Your task to perform on an android device: uninstall "DoorDash - Food Delivery" Image 0: 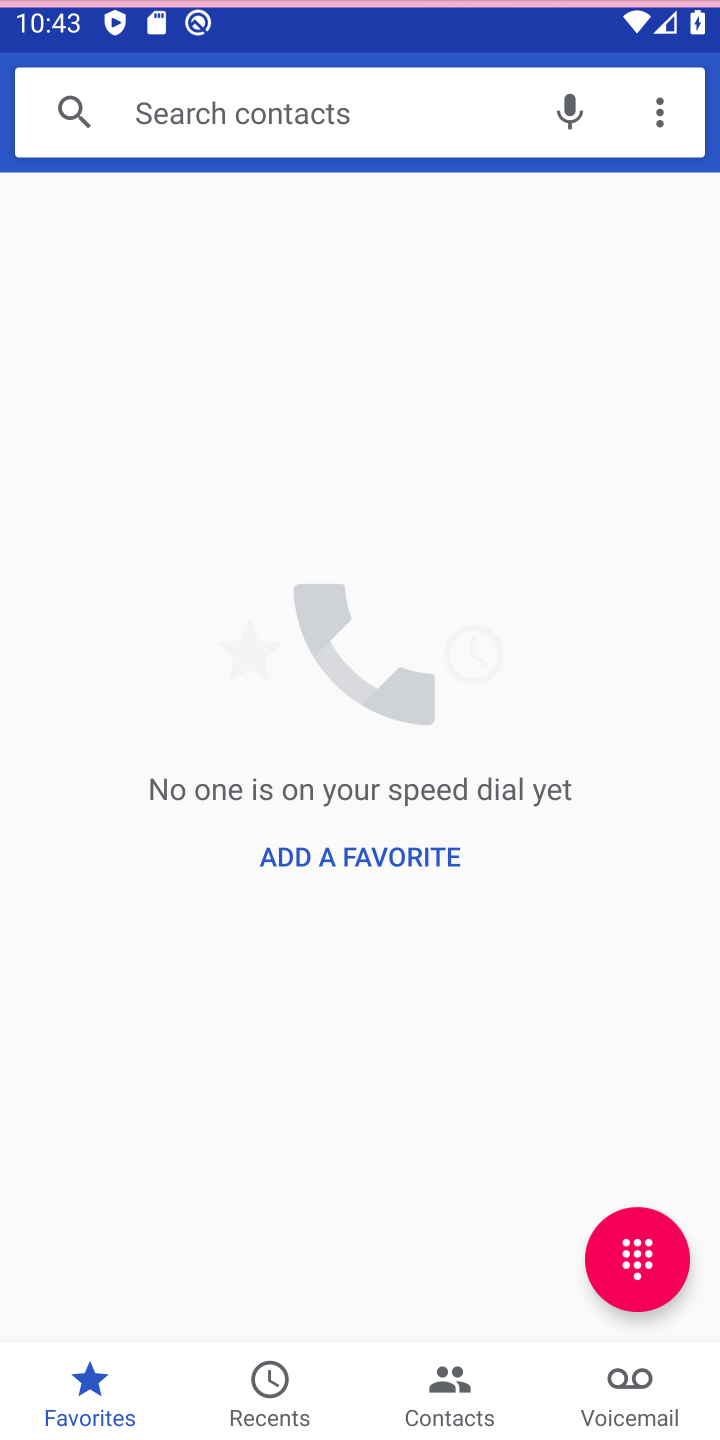
Step 0: click (590, 98)
Your task to perform on an android device: uninstall "DoorDash - Food Delivery" Image 1: 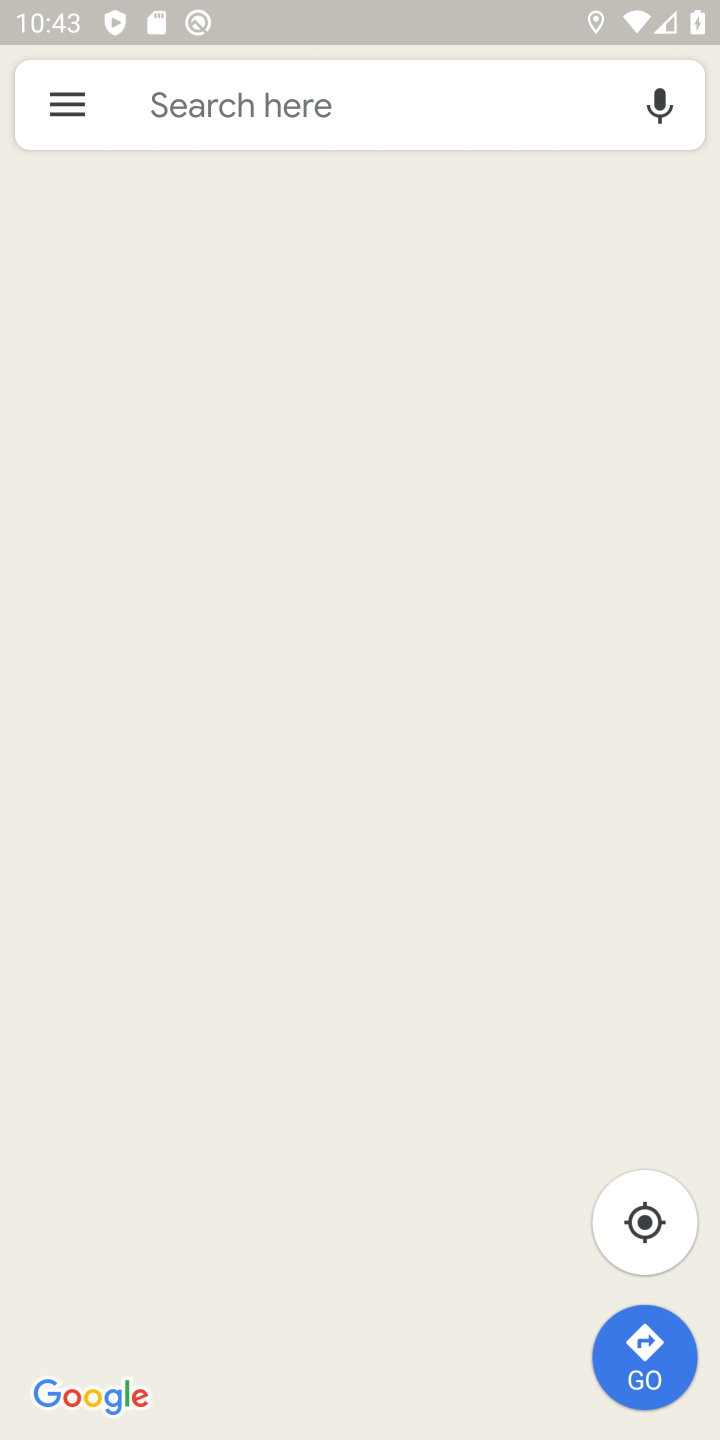
Step 1: press home button
Your task to perform on an android device: uninstall "DoorDash - Food Delivery" Image 2: 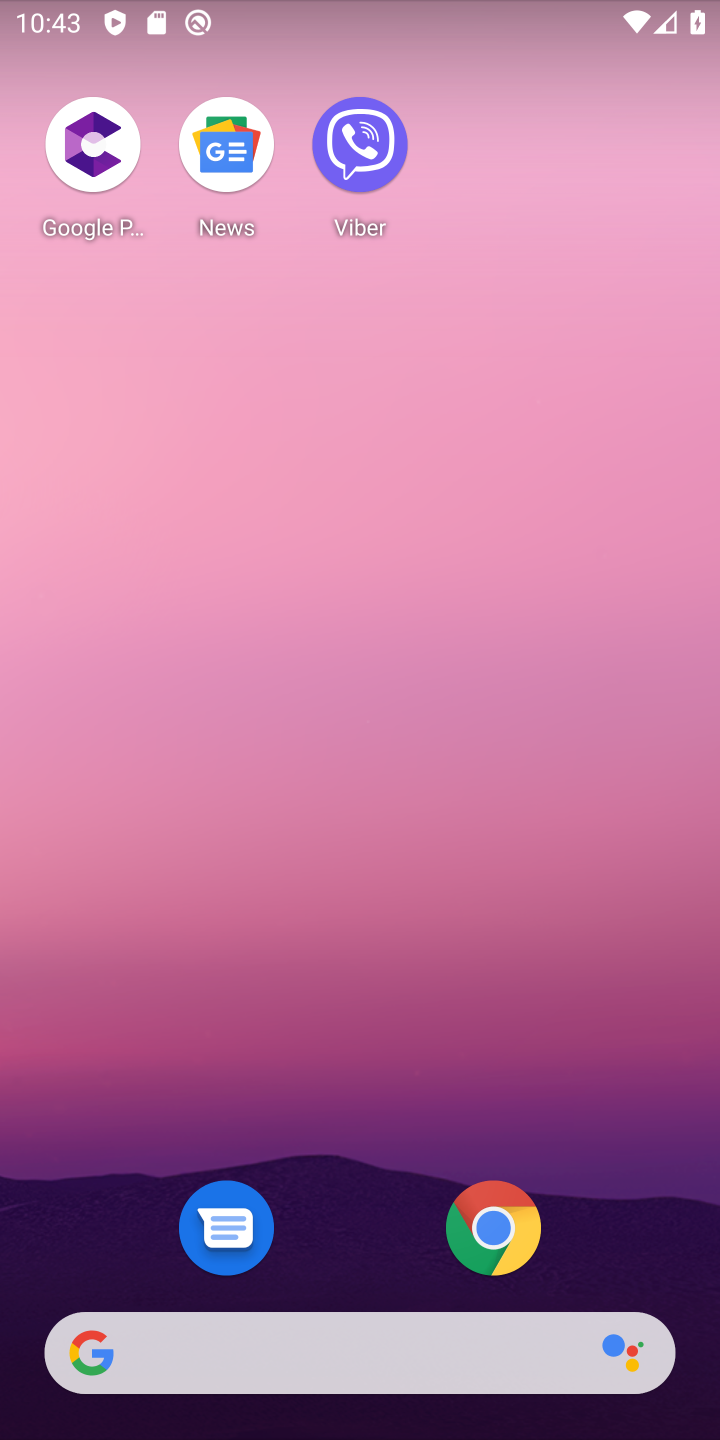
Step 2: drag from (345, 1283) to (337, 154)
Your task to perform on an android device: uninstall "DoorDash - Food Delivery" Image 3: 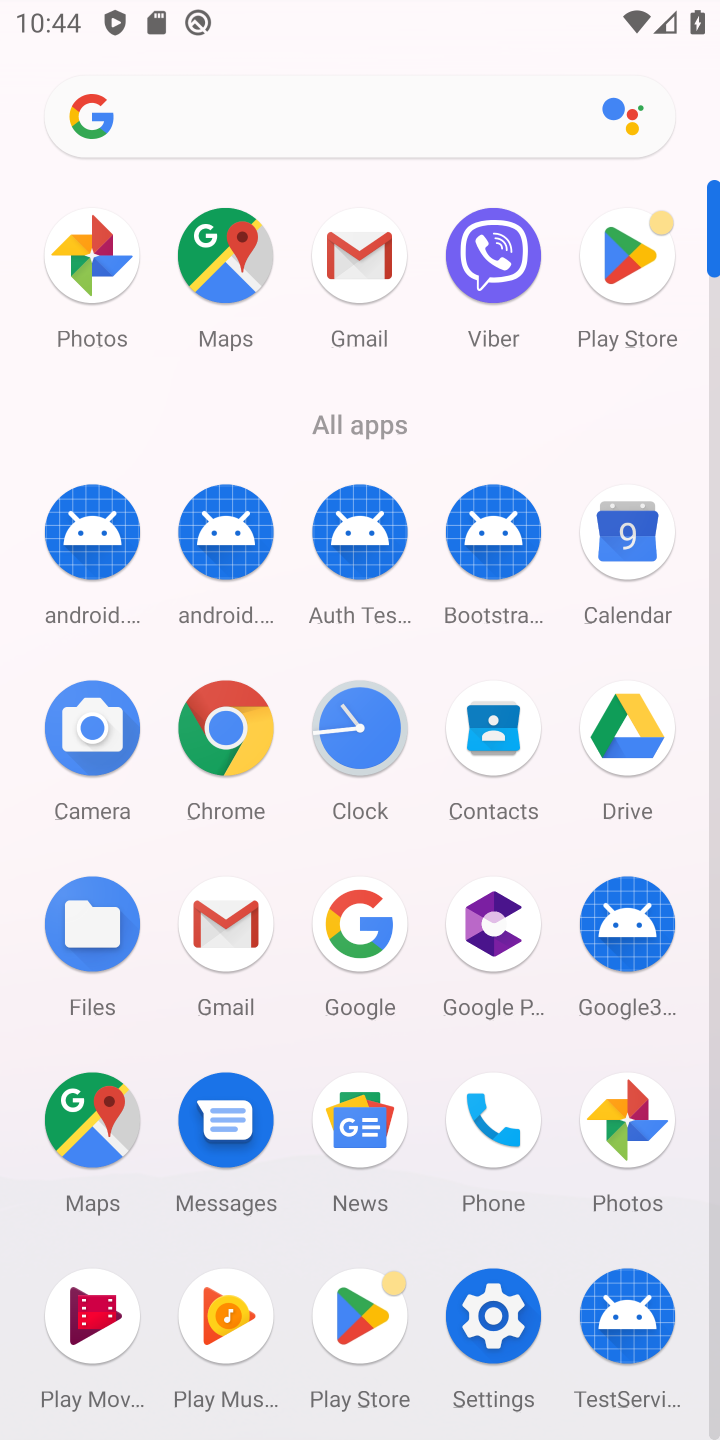
Step 3: click (638, 257)
Your task to perform on an android device: uninstall "DoorDash - Food Delivery" Image 4: 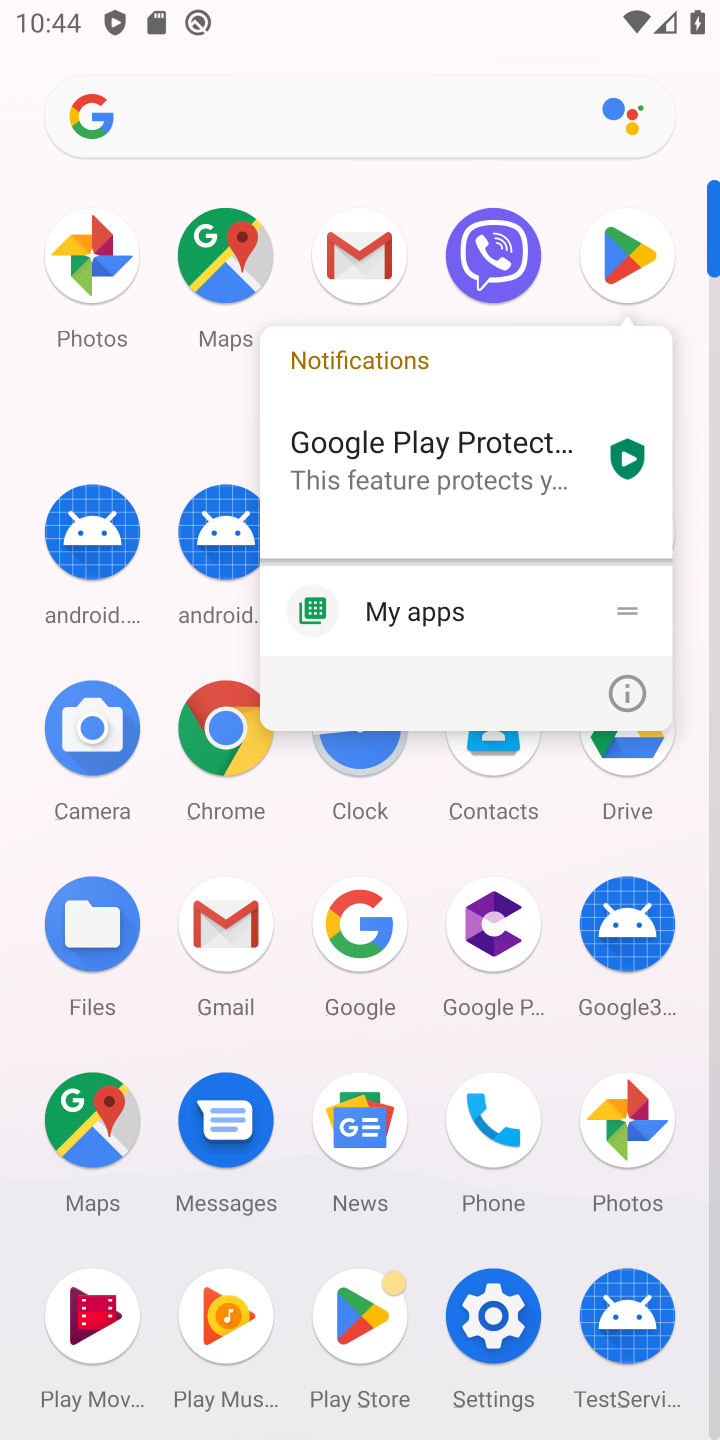
Step 4: click (626, 263)
Your task to perform on an android device: uninstall "DoorDash - Food Delivery" Image 5: 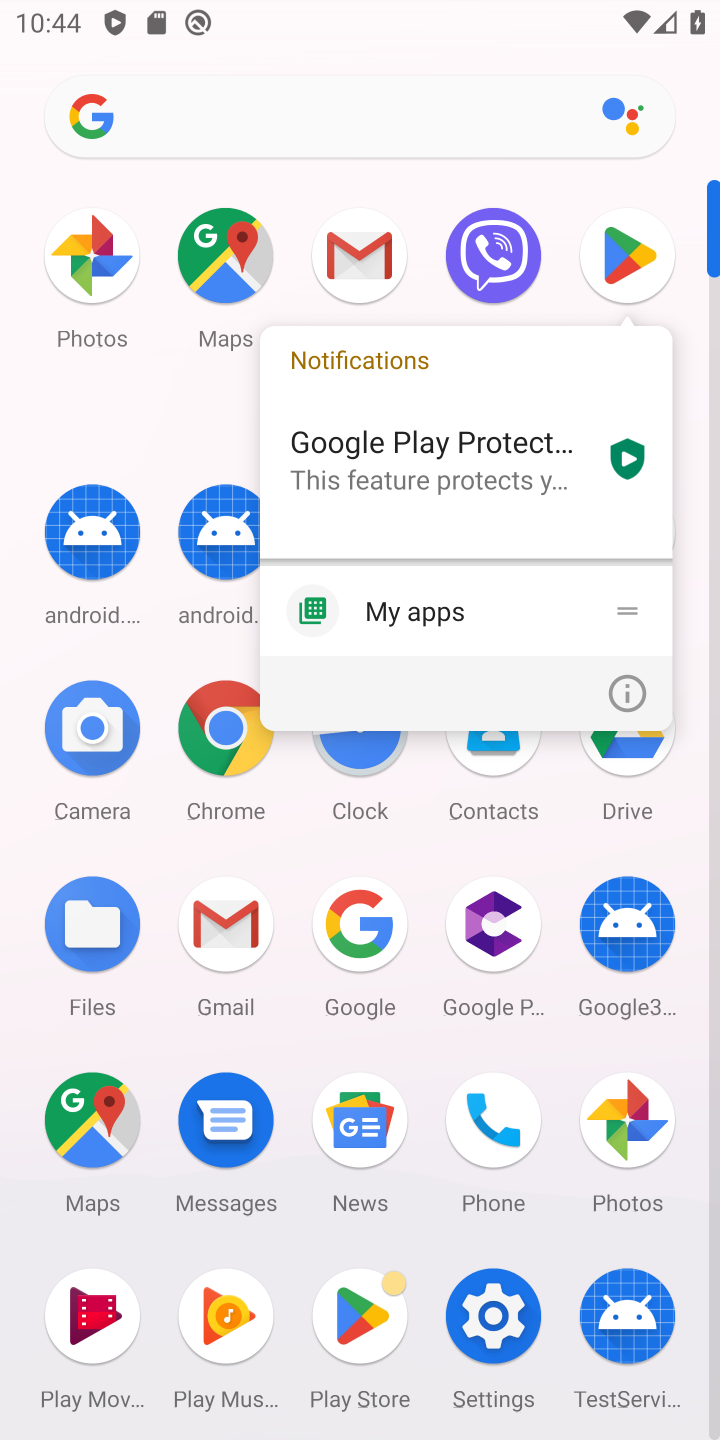
Step 5: click (613, 253)
Your task to perform on an android device: uninstall "DoorDash - Food Delivery" Image 6: 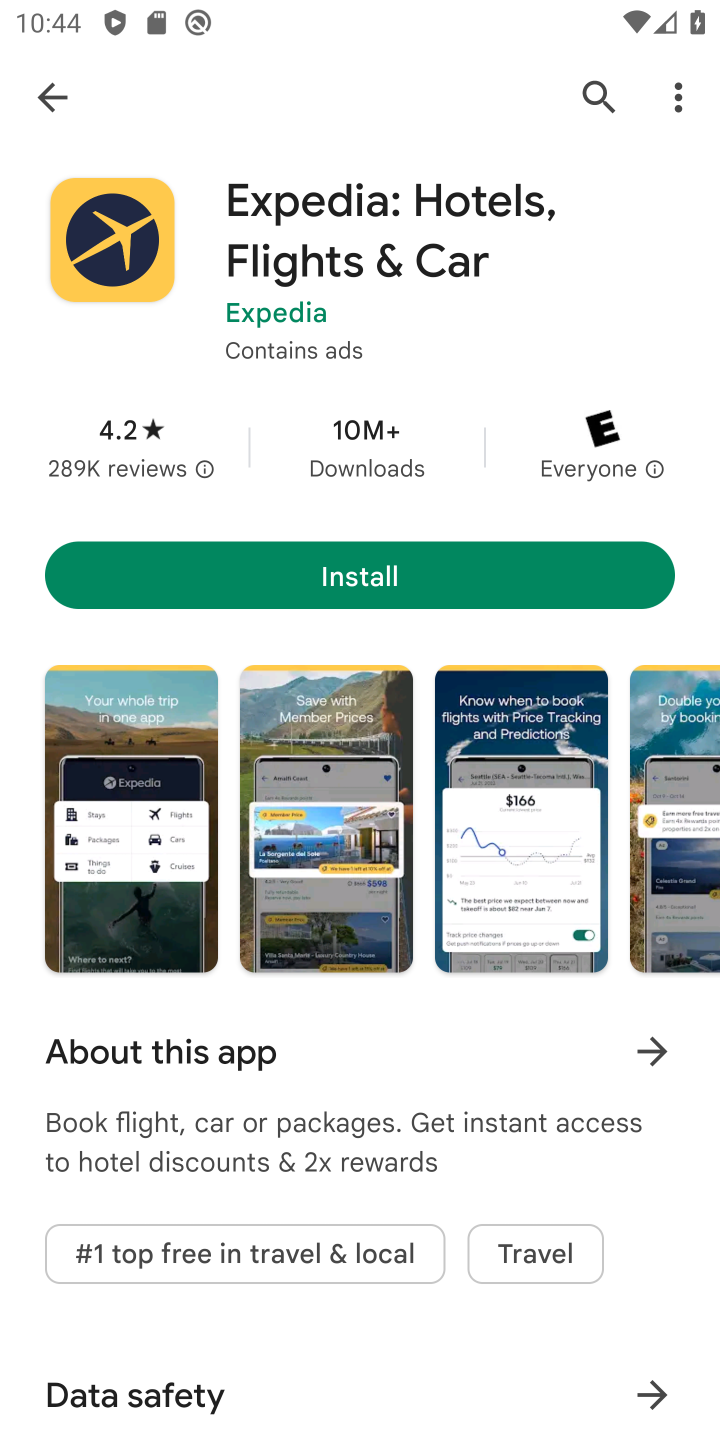
Step 6: click (598, 90)
Your task to perform on an android device: uninstall "DoorDash - Food Delivery" Image 7: 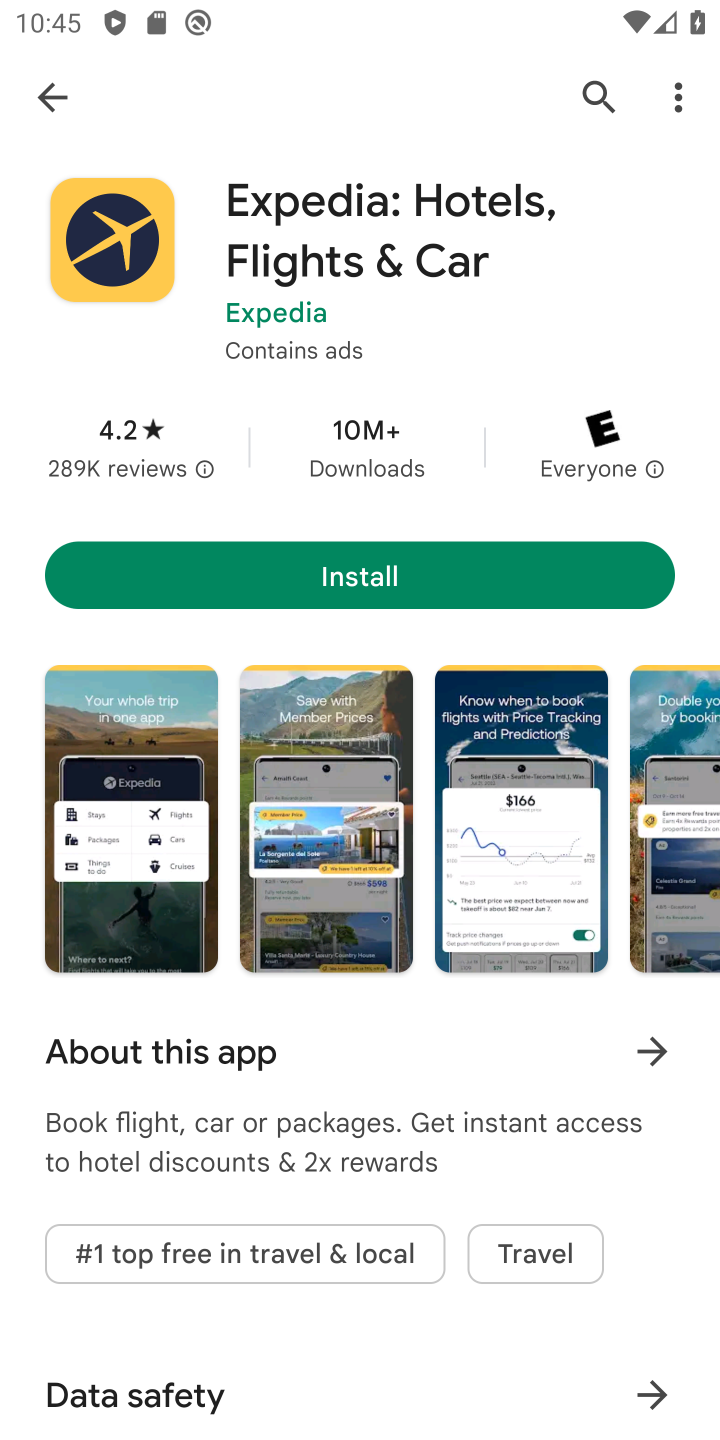
Step 7: click (599, 85)
Your task to perform on an android device: uninstall "DoorDash - Food Delivery" Image 8: 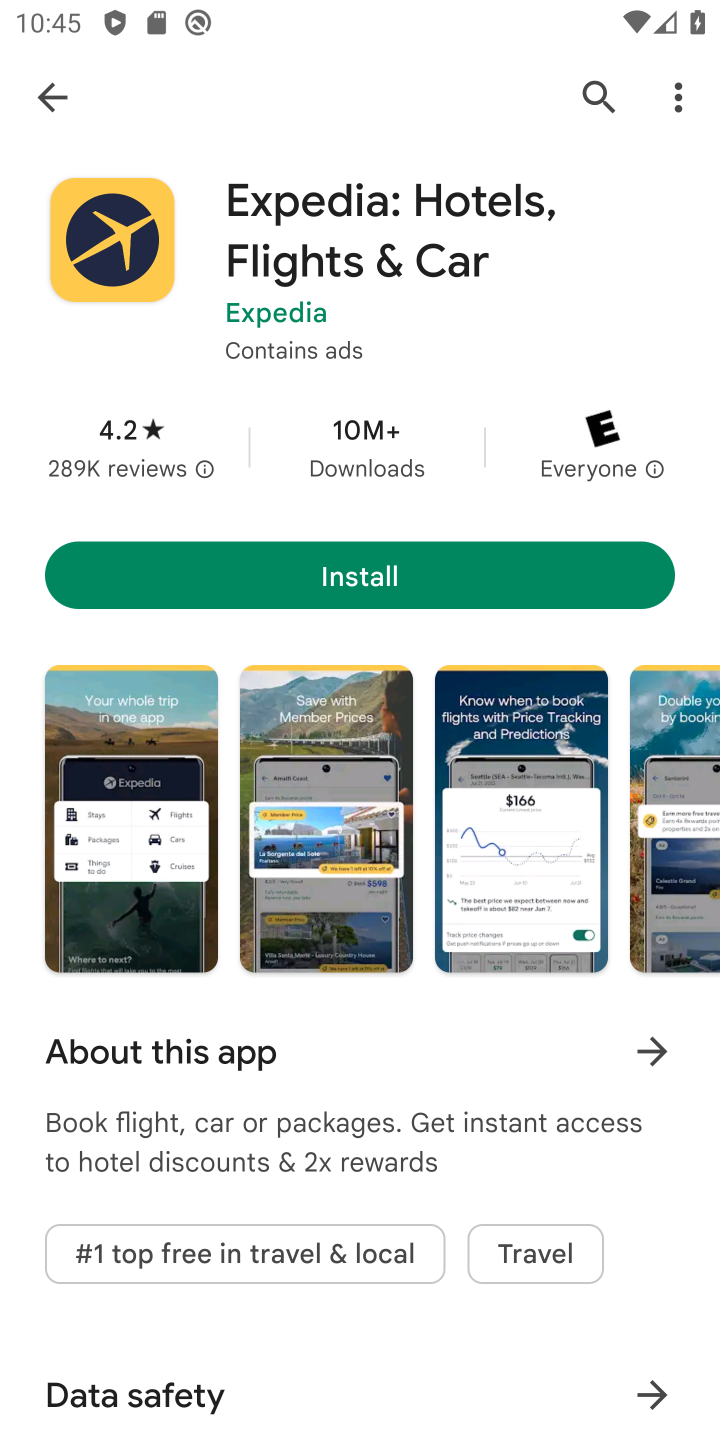
Step 8: click (52, 94)
Your task to perform on an android device: uninstall "DoorDash - Food Delivery" Image 9: 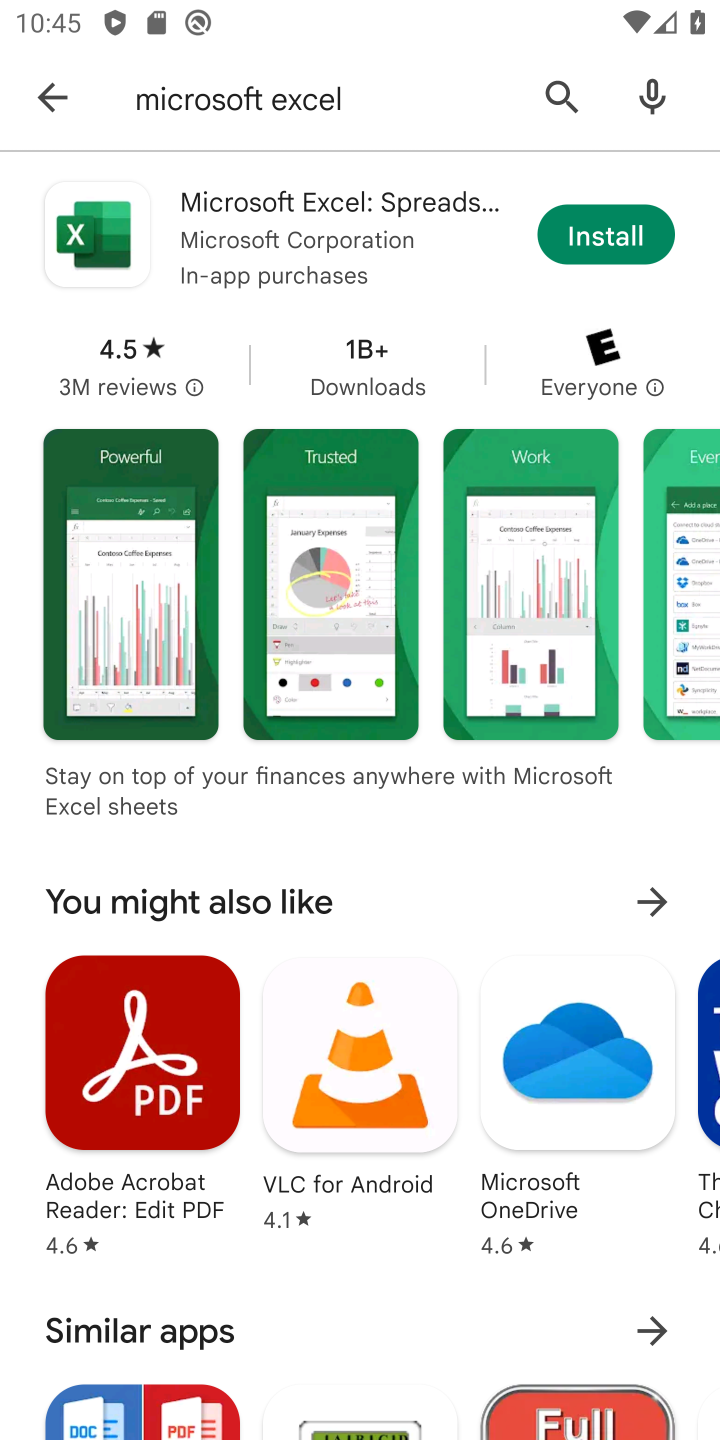
Step 9: click (568, 88)
Your task to perform on an android device: uninstall "DoorDash - Food Delivery" Image 10: 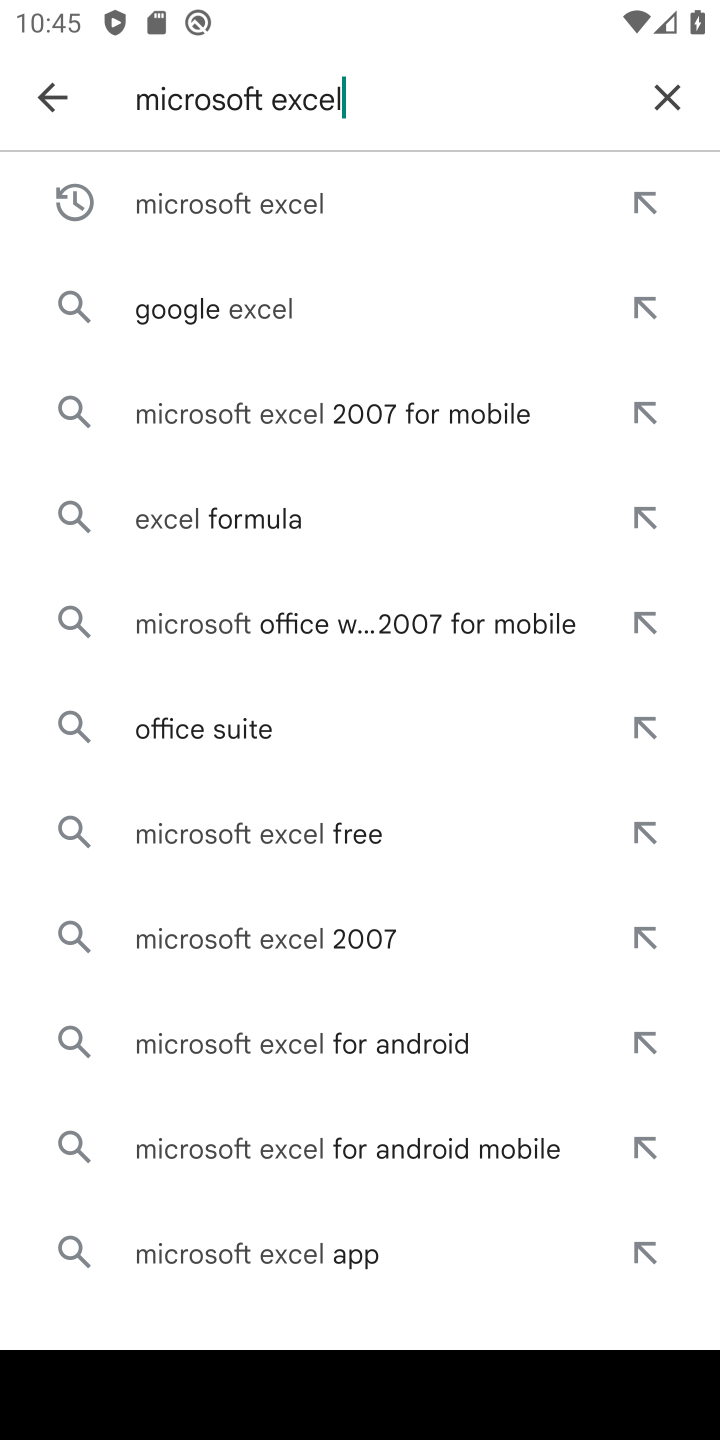
Step 10: click (660, 100)
Your task to perform on an android device: uninstall "DoorDash - Food Delivery" Image 11: 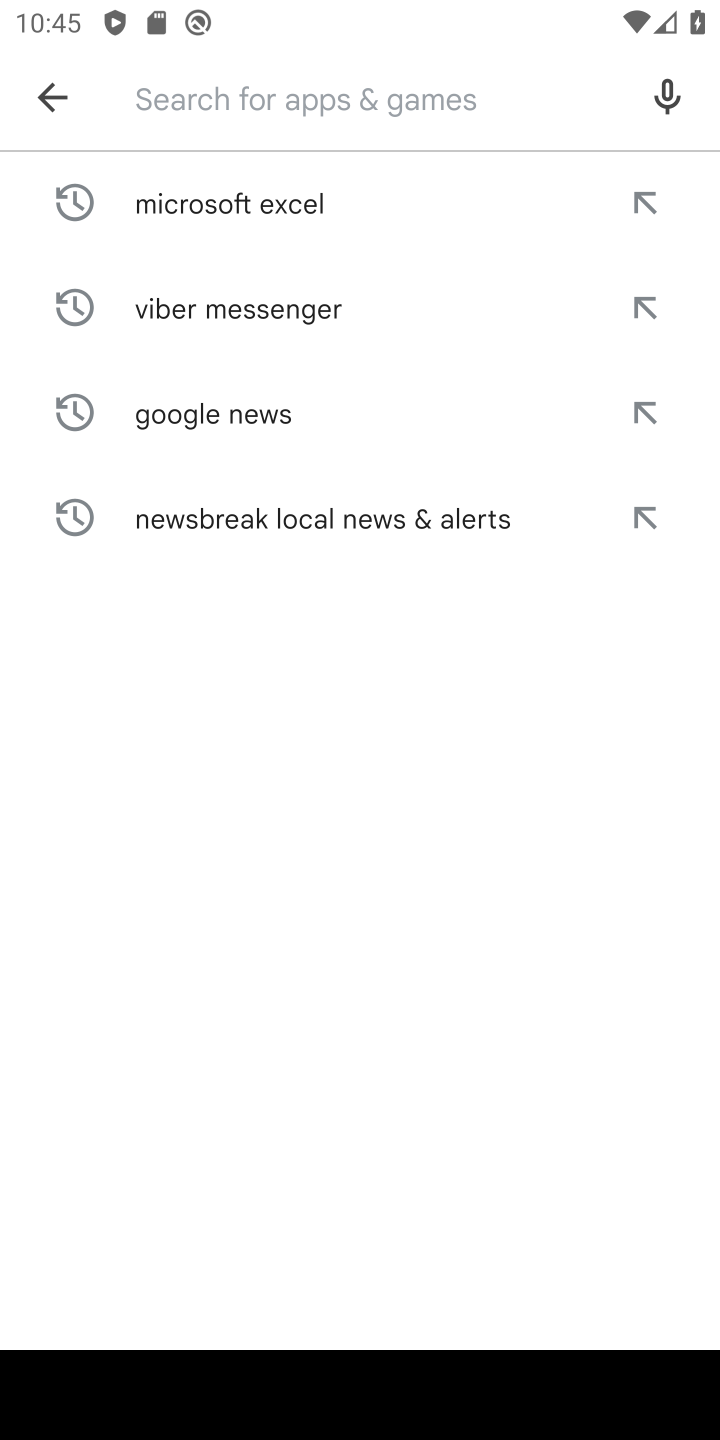
Step 11: type "DoorDash - Food Delivery"
Your task to perform on an android device: uninstall "DoorDash - Food Delivery" Image 12: 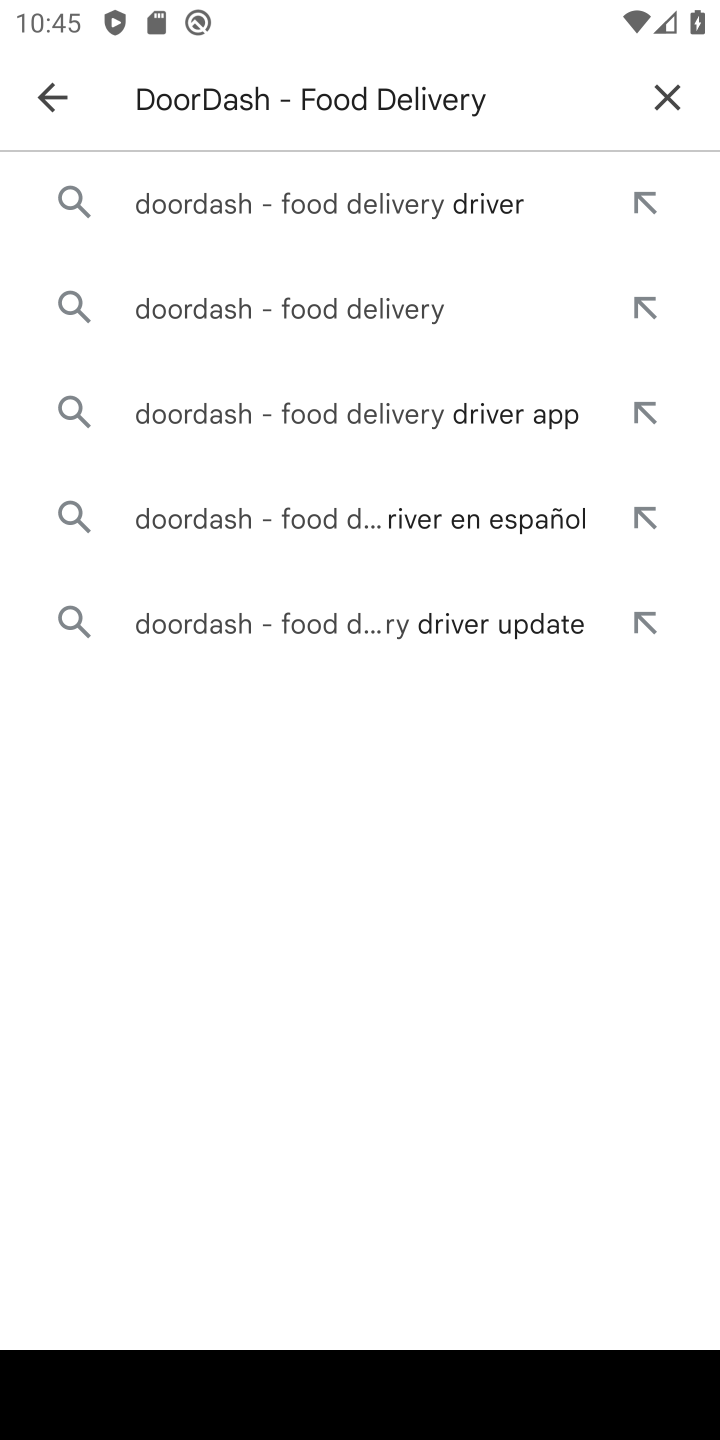
Step 12: click (287, 207)
Your task to perform on an android device: uninstall "DoorDash - Food Delivery" Image 13: 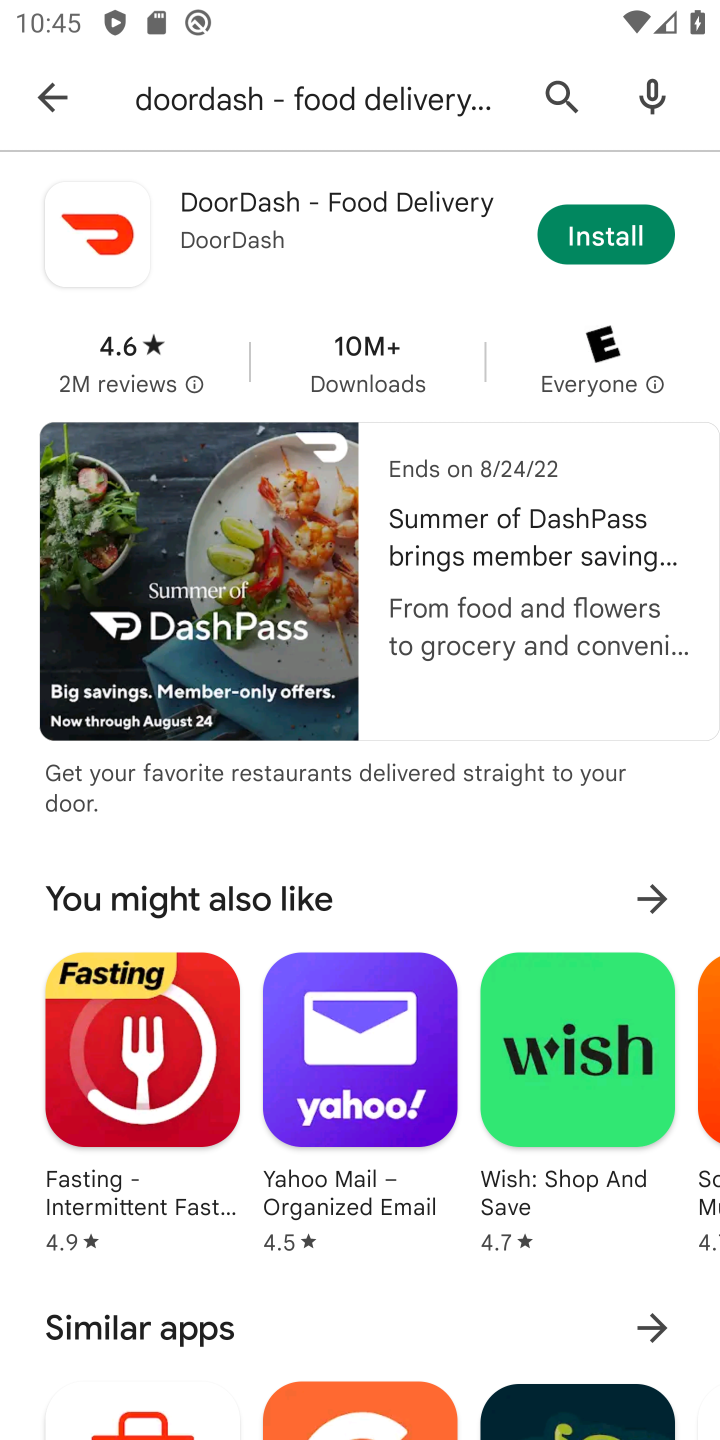
Step 13: click (300, 214)
Your task to perform on an android device: uninstall "DoorDash - Food Delivery" Image 14: 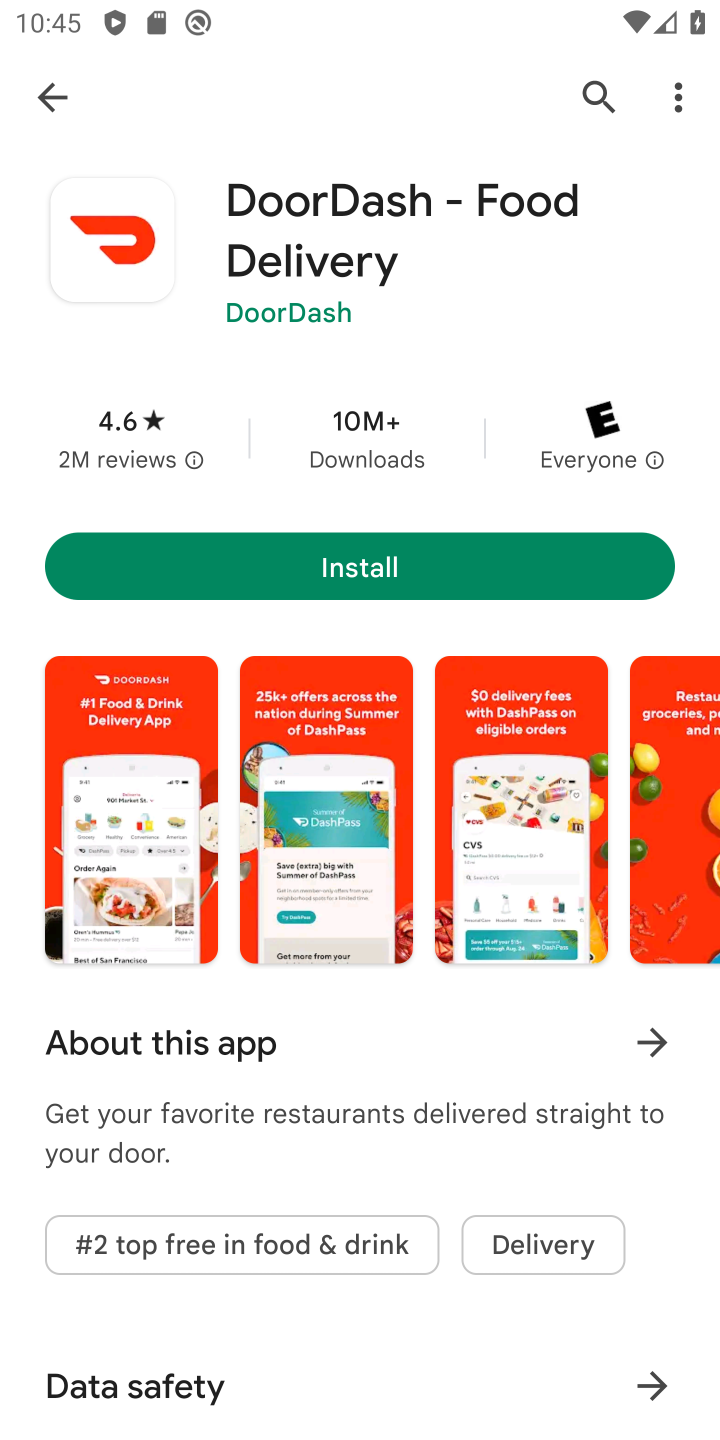
Step 14: task complete